Your task to perform on an android device: Go to settings Image 0: 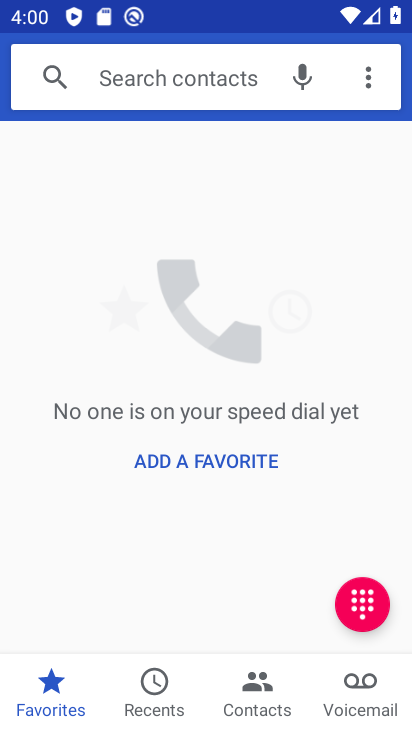
Step 0: press home button
Your task to perform on an android device: Go to settings Image 1: 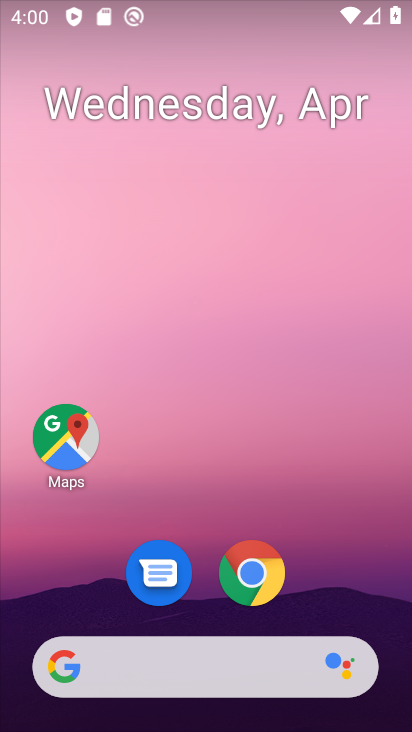
Step 1: drag from (386, 597) to (296, 5)
Your task to perform on an android device: Go to settings Image 2: 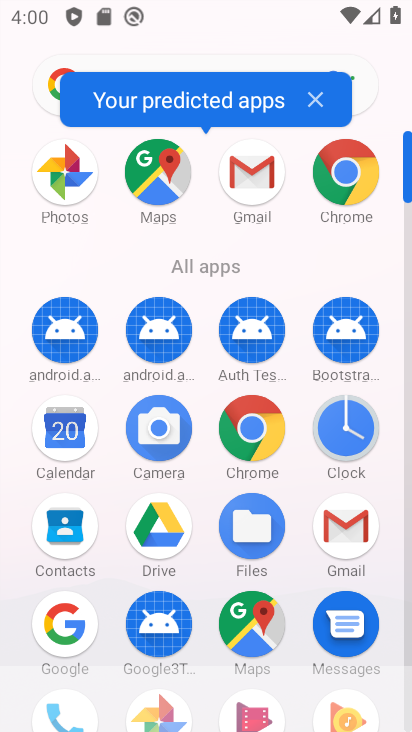
Step 2: click (407, 506)
Your task to perform on an android device: Go to settings Image 3: 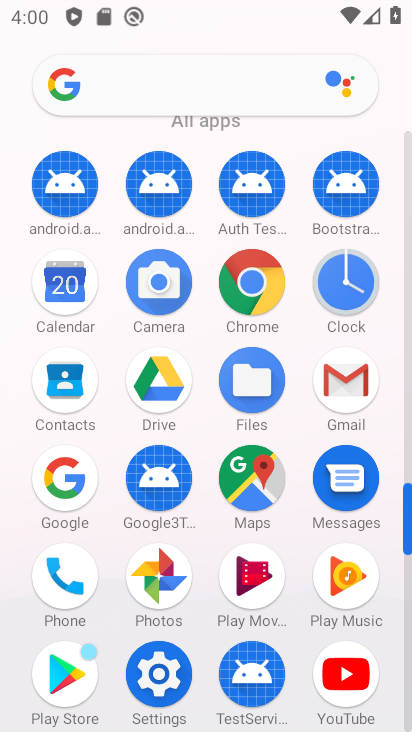
Step 3: click (156, 682)
Your task to perform on an android device: Go to settings Image 4: 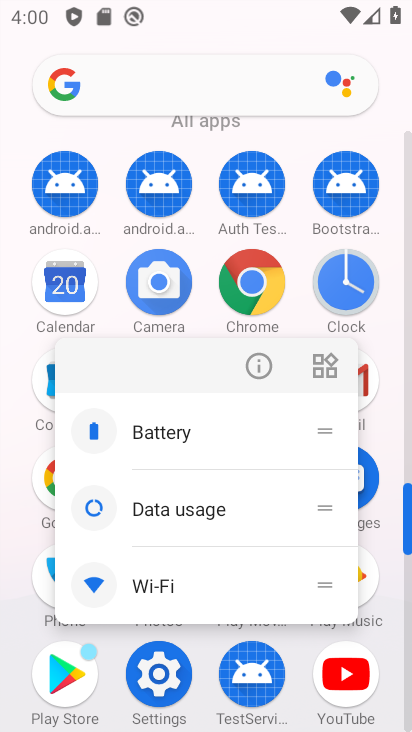
Step 4: click (159, 680)
Your task to perform on an android device: Go to settings Image 5: 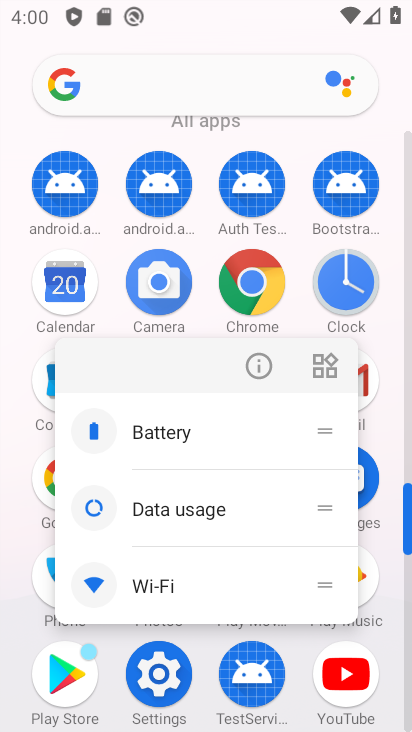
Step 5: click (156, 673)
Your task to perform on an android device: Go to settings Image 6: 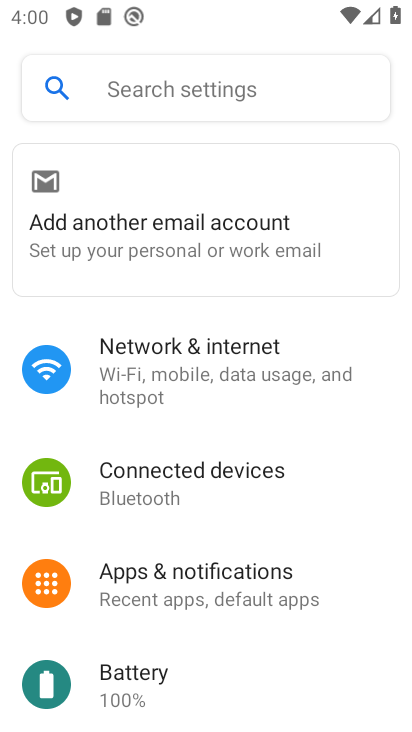
Step 6: task complete